Your task to perform on an android device: install app "DoorDash - Food Delivery" Image 0: 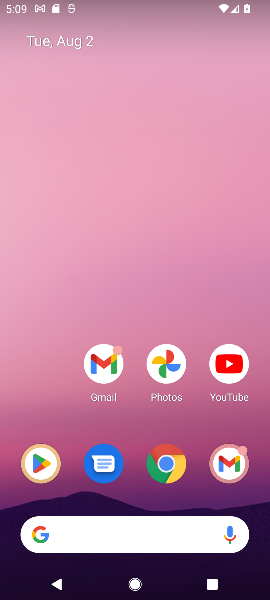
Step 0: press home button
Your task to perform on an android device: install app "DoorDash - Food Delivery" Image 1: 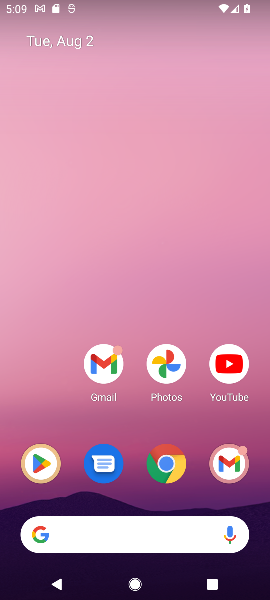
Step 1: click (34, 470)
Your task to perform on an android device: install app "DoorDash - Food Delivery" Image 2: 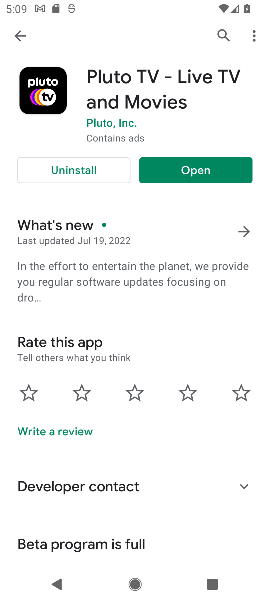
Step 2: click (224, 39)
Your task to perform on an android device: install app "DoorDash - Food Delivery" Image 3: 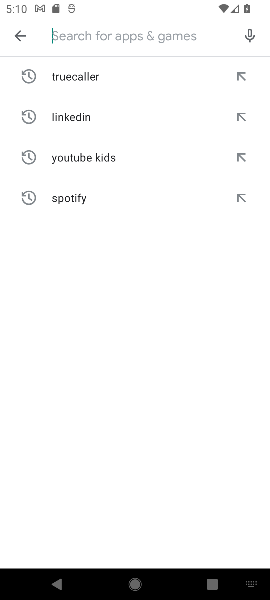
Step 3: type "DoorDash - Food Delivery"
Your task to perform on an android device: install app "DoorDash - Food Delivery" Image 4: 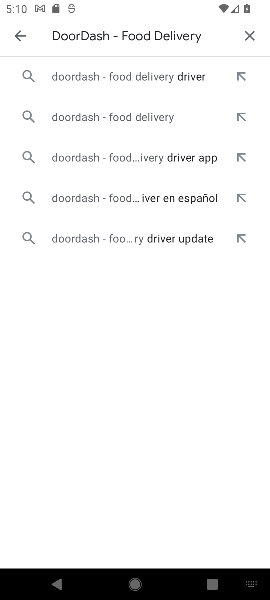
Step 4: click (133, 79)
Your task to perform on an android device: install app "DoorDash - Food Delivery" Image 5: 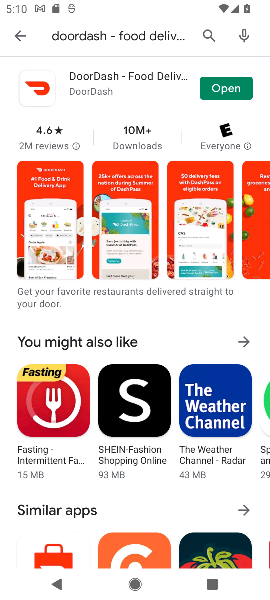
Step 5: task complete